Your task to perform on an android device: add a contact Image 0: 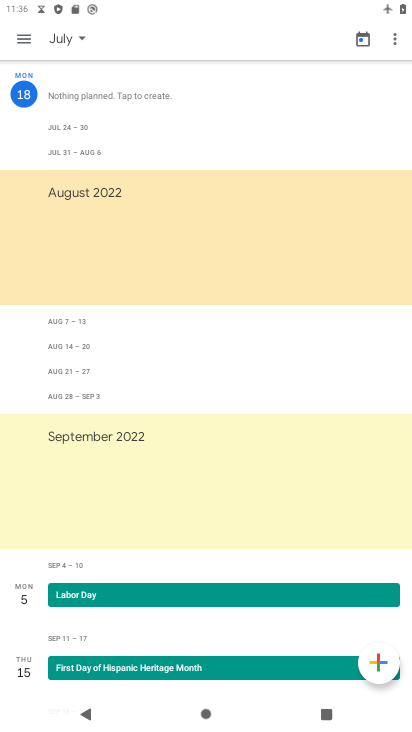
Step 0: press home button
Your task to perform on an android device: add a contact Image 1: 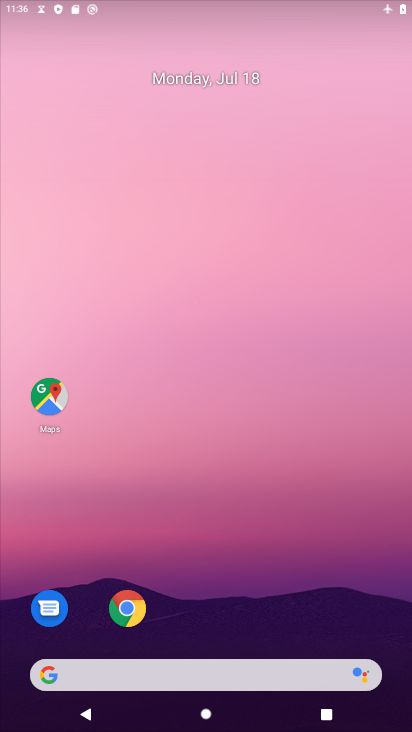
Step 1: drag from (225, 682) to (338, 11)
Your task to perform on an android device: add a contact Image 2: 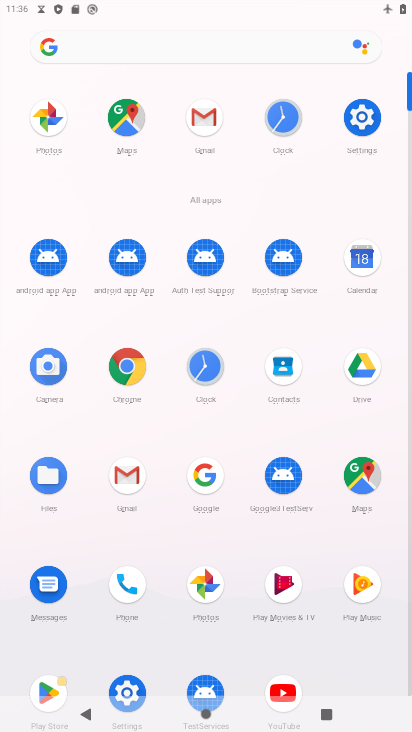
Step 2: click (274, 374)
Your task to perform on an android device: add a contact Image 3: 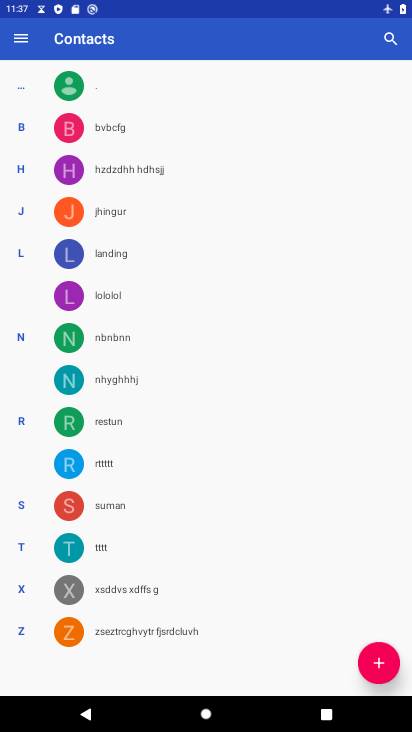
Step 3: click (380, 656)
Your task to perform on an android device: add a contact Image 4: 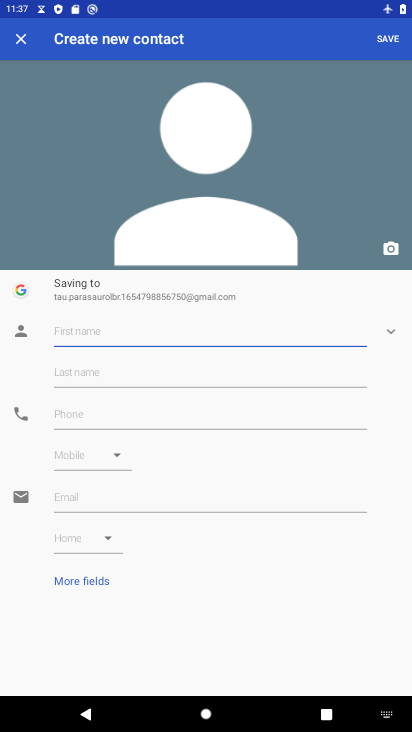
Step 4: type "manav"
Your task to perform on an android device: add a contact Image 5: 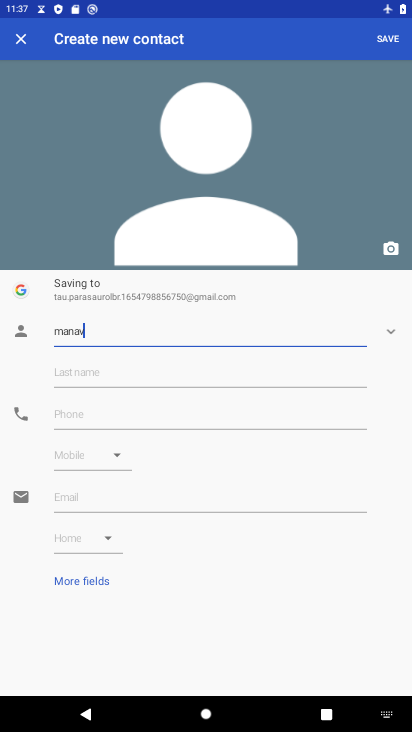
Step 5: click (120, 416)
Your task to perform on an android device: add a contact Image 6: 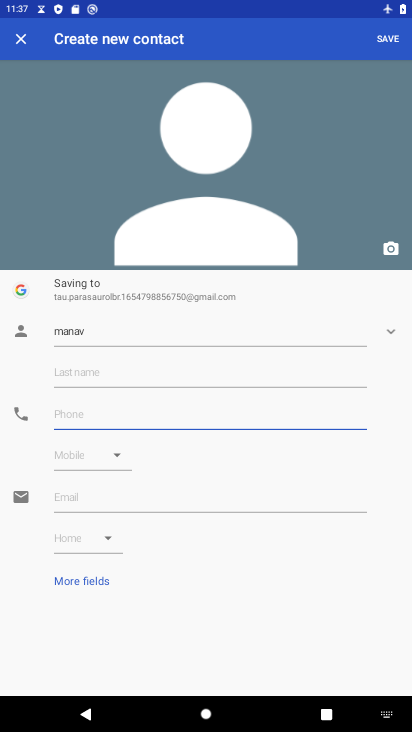
Step 6: type "876877687656"
Your task to perform on an android device: add a contact Image 7: 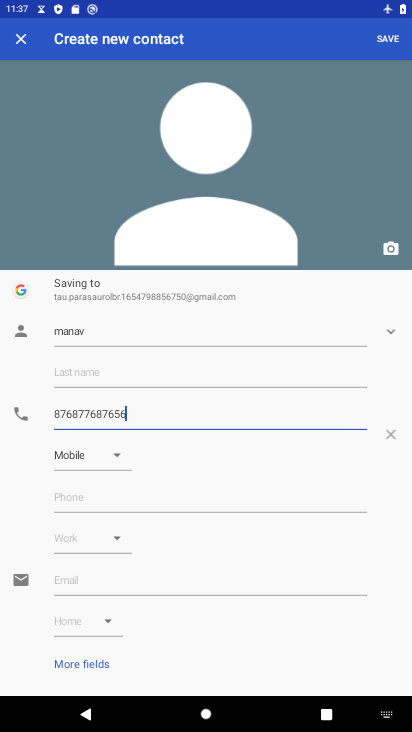
Step 7: click (383, 29)
Your task to perform on an android device: add a contact Image 8: 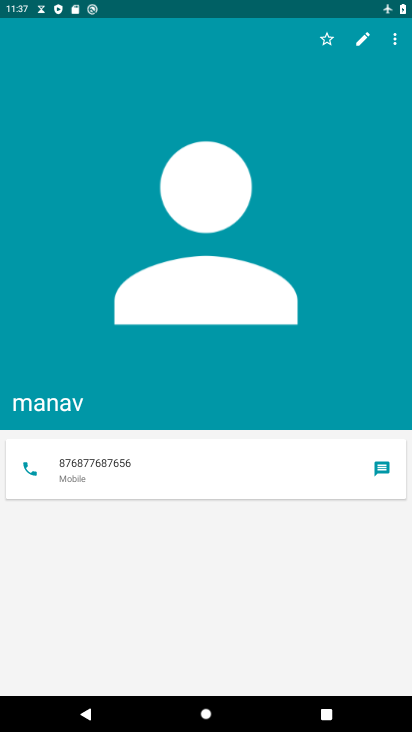
Step 8: task complete